Your task to perform on an android device: change timer sound Image 0: 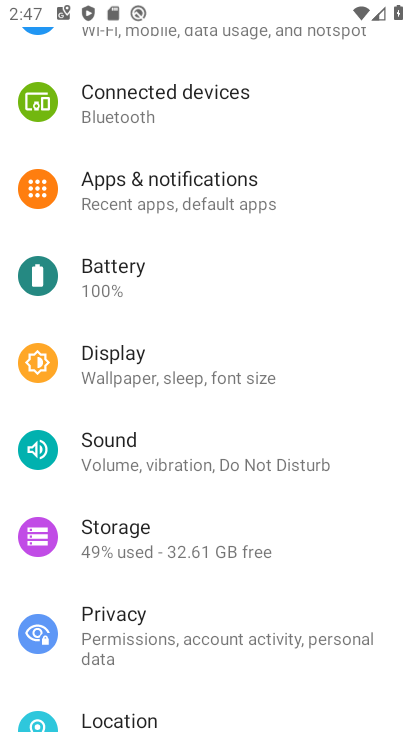
Step 0: press home button
Your task to perform on an android device: change timer sound Image 1: 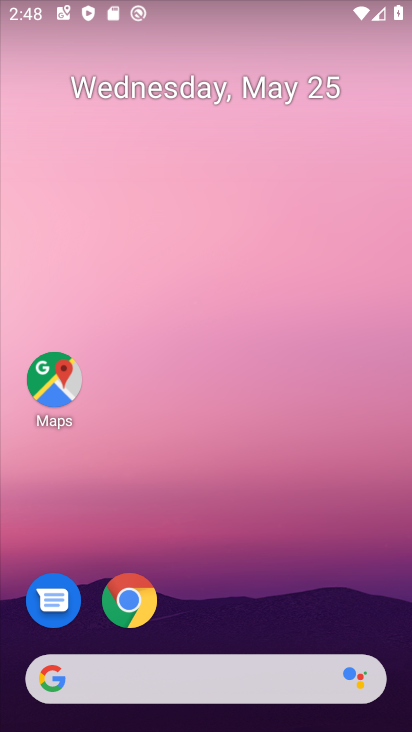
Step 1: drag from (6, 707) to (275, 95)
Your task to perform on an android device: change timer sound Image 2: 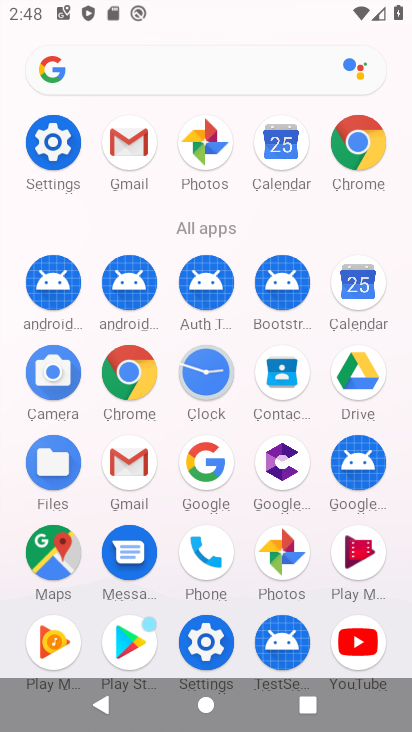
Step 2: click (41, 135)
Your task to perform on an android device: change timer sound Image 3: 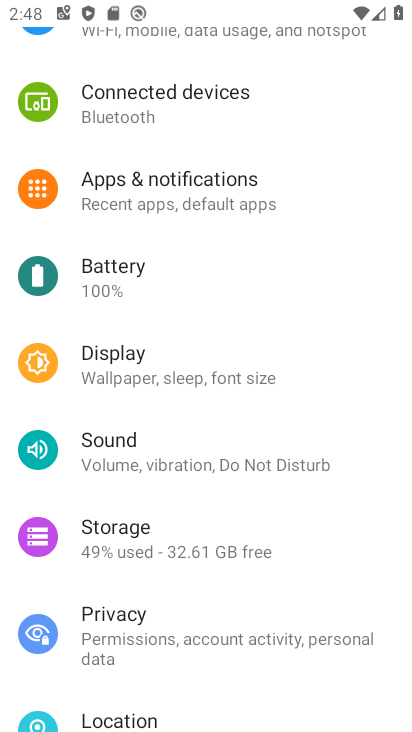
Step 3: drag from (137, 187) to (144, 581)
Your task to perform on an android device: change timer sound Image 4: 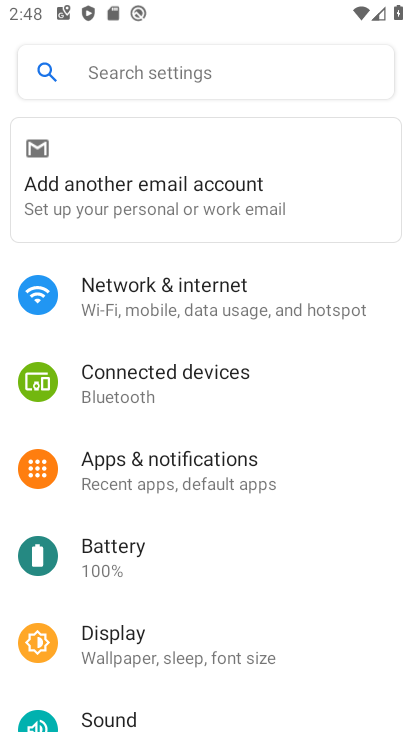
Step 4: drag from (12, 542) to (164, 202)
Your task to perform on an android device: change timer sound Image 5: 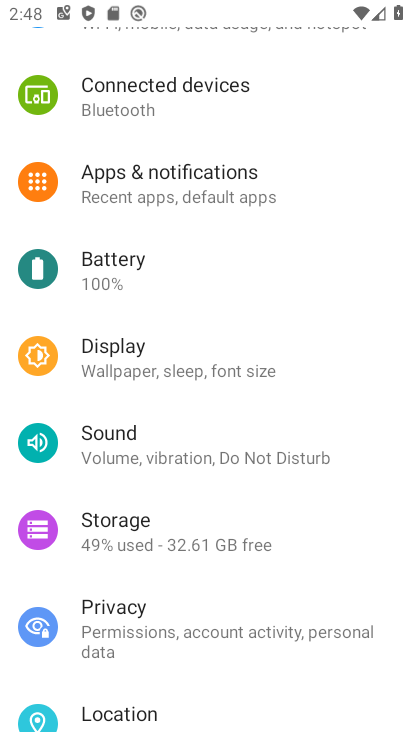
Step 5: click (119, 446)
Your task to perform on an android device: change timer sound Image 6: 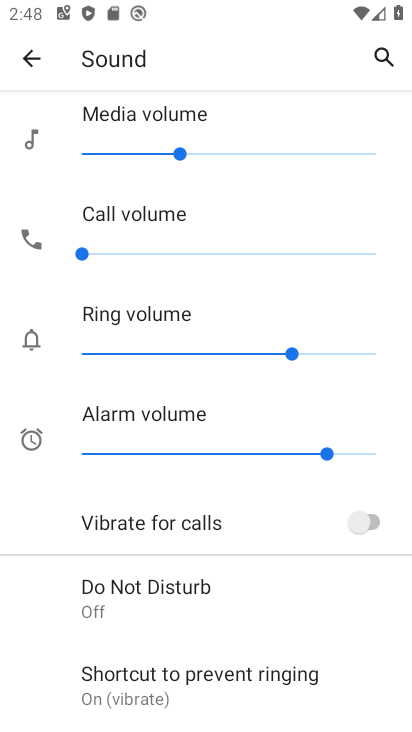
Step 6: task complete